Your task to perform on an android device: search for starred emails in the gmail app Image 0: 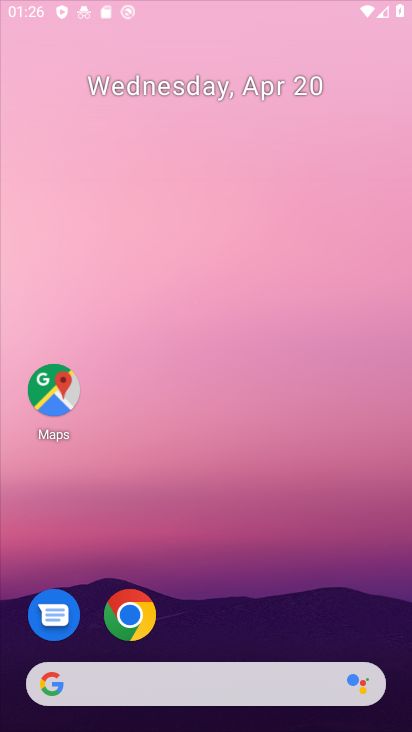
Step 0: drag from (349, 293) to (332, 169)
Your task to perform on an android device: search for starred emails in the gmail app Image 1: 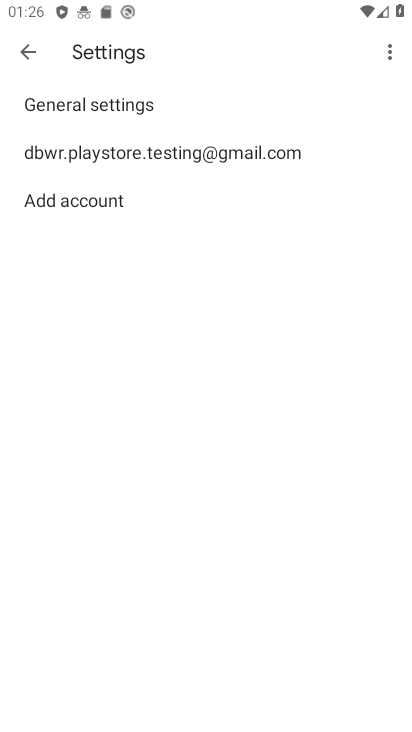
Step 1: press back button
Your task to perform on an android device: search for starred emails in the gmail app Image 2: 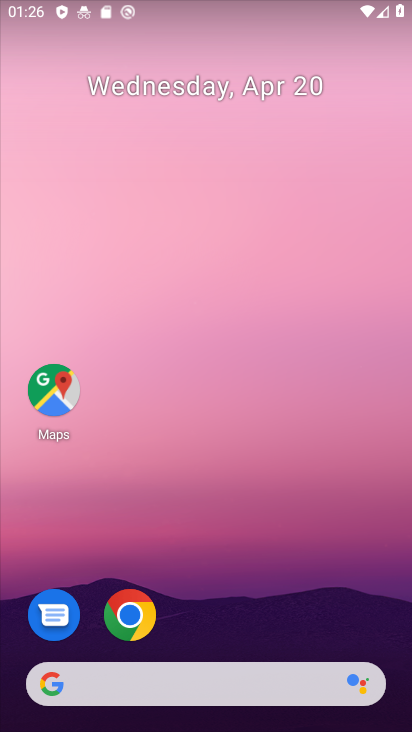
Step 2: drag from (380, 573) to (331, 144)
Your task to perform on an android device: search for starred emails in the gmail app Image 3: 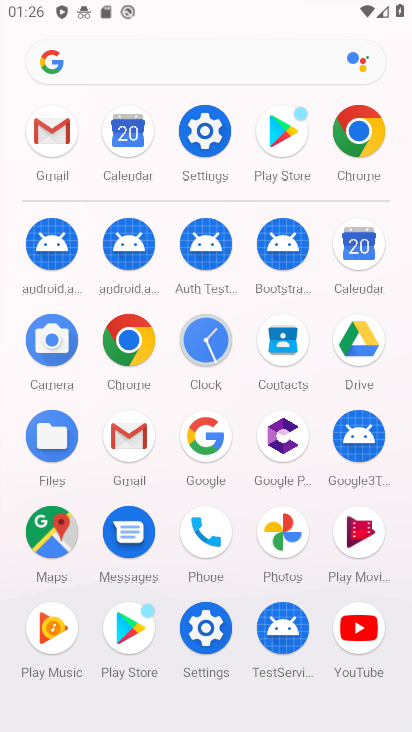
Step 3: click (54, 145)
Your task to perform on an android device: search for starred emails in the gmail app Image 4: 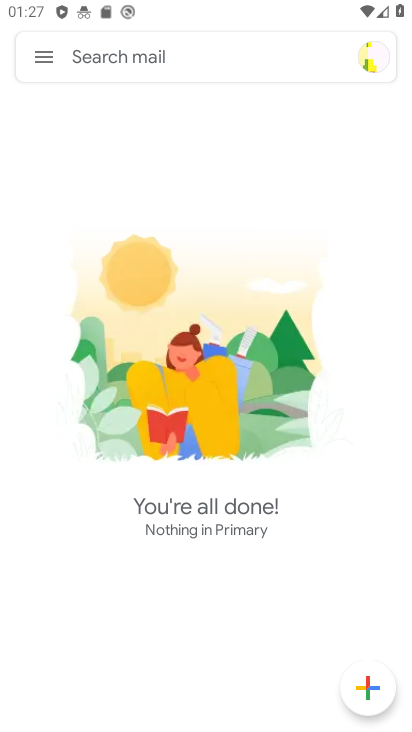
Step 4: click (40, 50)
Your task to perform on an android device: search for starred emails in the gmail app Image 5: 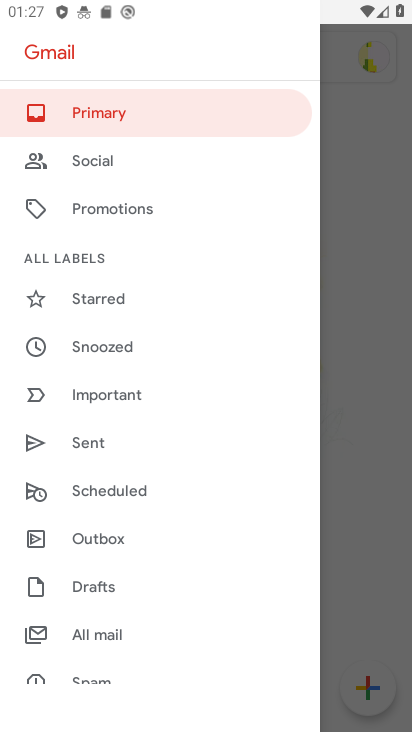
Step 5: click (82, 296)
Your task to perform on an android device: search for starred emails in the gmail app Image 6: 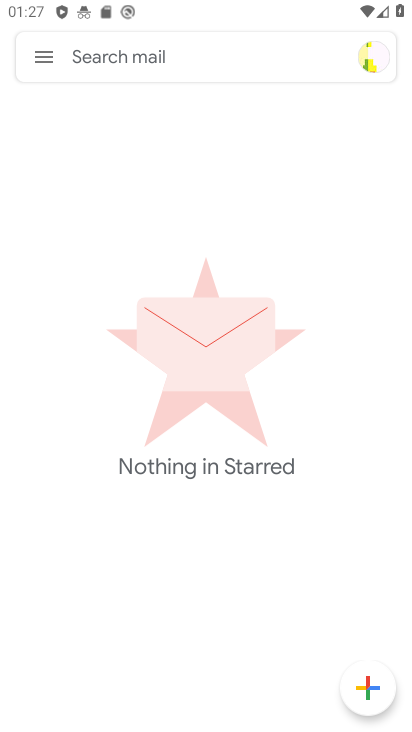
Step 6: task complete